Your task to perform on an android device: open a bookmark in the chrome app Image 0: 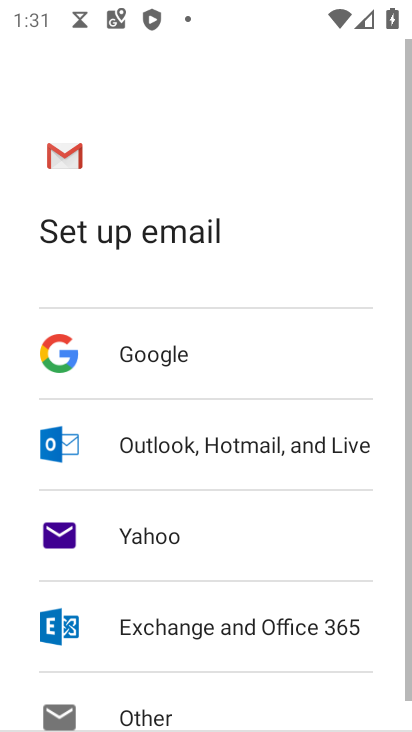
Step 0: press home button
Your task to perform on an android device: open a bookmark in the chrome app Image 1: 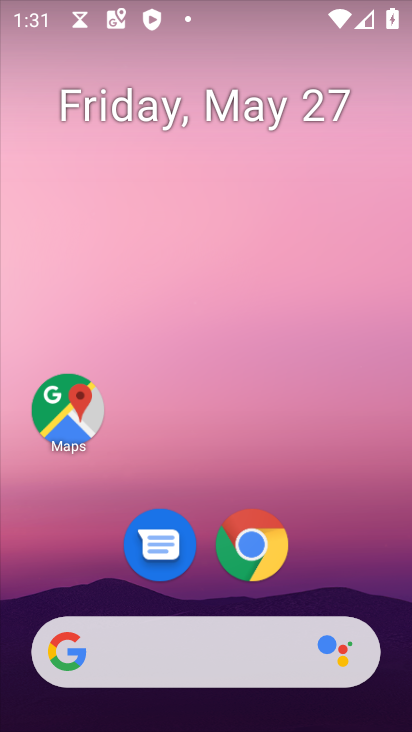
Step 1: drag from (387, 444) to (262, 12)
Your task to perform on an android device: open a bookmark in the chrome app Image 2: 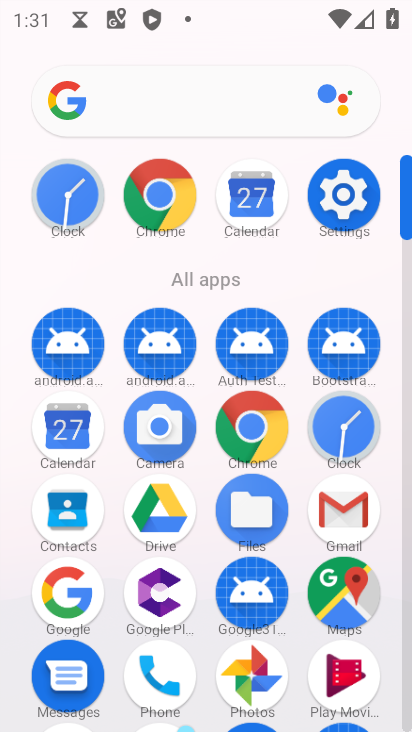
Step 2: click (252, 432)
Your task to perform on an android device: open a bookmark in the chrome app Image 3: 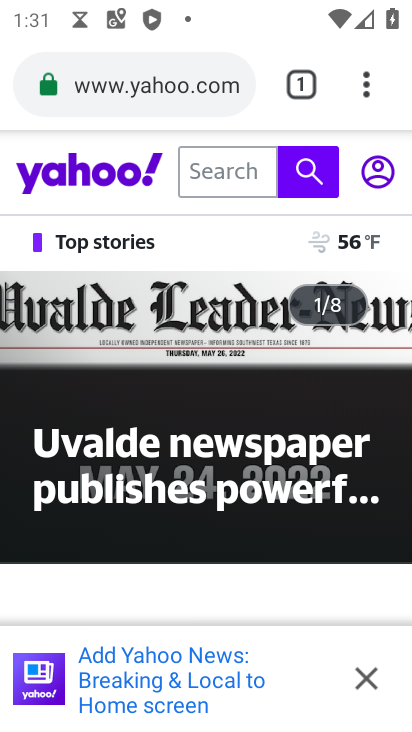
Step 3: click (366, 80)
Your task to perform on an android device: open a bookmark in the chrome app Image 4: 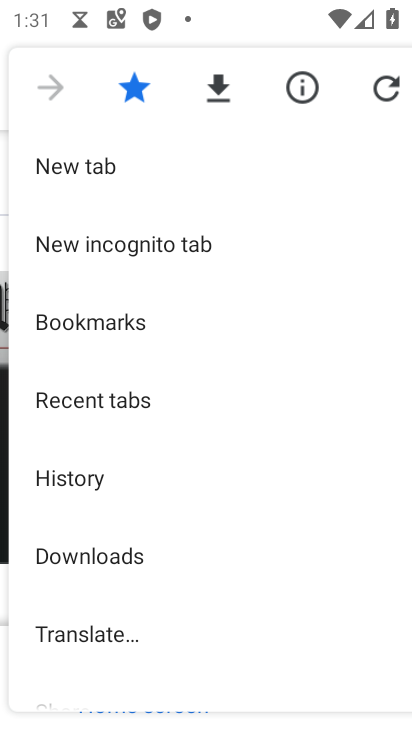
Step 4: click (143, 317)
Your task to perform on an android device: open a bookmark in the chrome app Image 5: 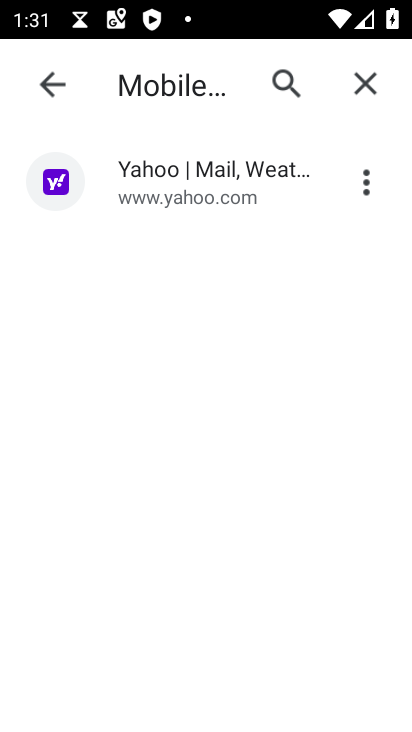
Step 5: click (158, 193)
Your task to perform on an android device: open a bookmark in the chrome app Image 6: 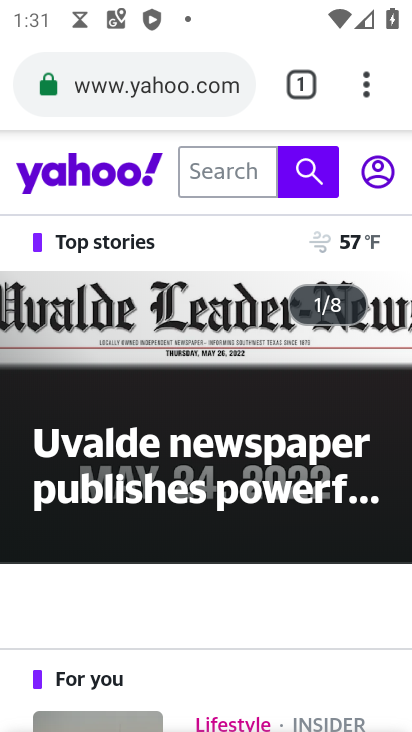
Step 6: task complete